Your task to perform on an android device: Clear the shopping cart on ebay.com. Add "logitech g903" to the cart on ebay.com Image 0: 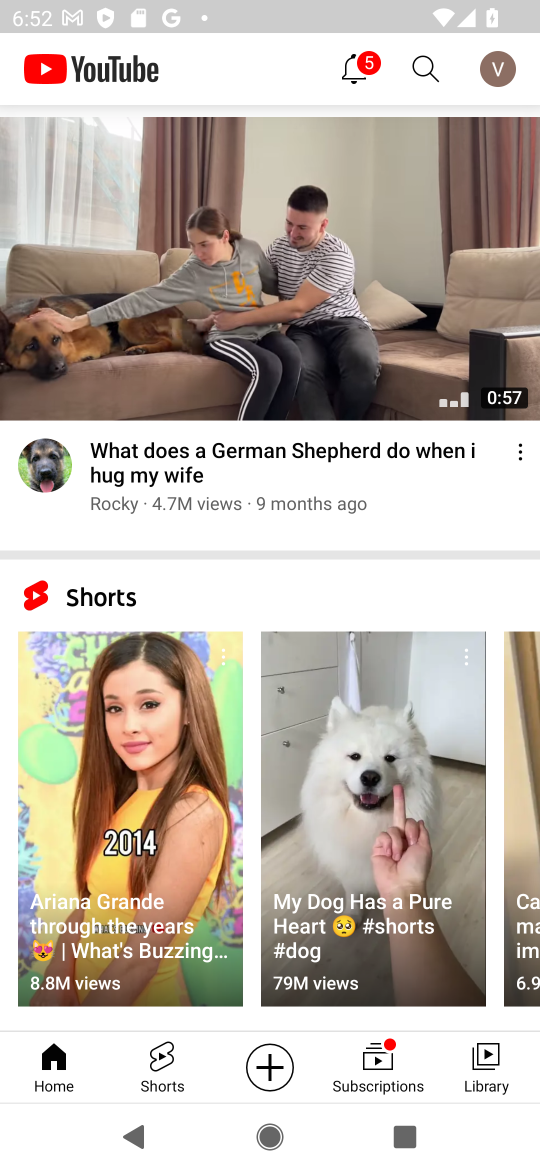
Step 0: press home button
Your task to perform on an android device: Clear the shopping cart on ebay.com. Add "logitech g903" to the cart on ebay.com Image 1: 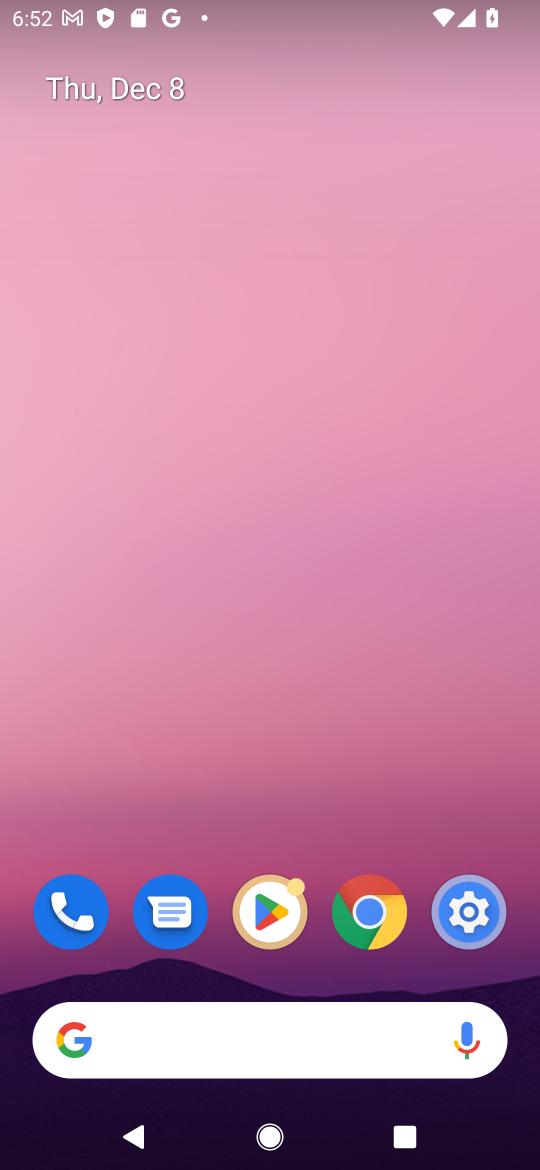
Step 1: drag from (439, 178) to (495, 37)
Your task to perform on an android device: Clear the shopping cart on ebay.com. Add "logitech g903" to the cart on ebay.com Image 2: 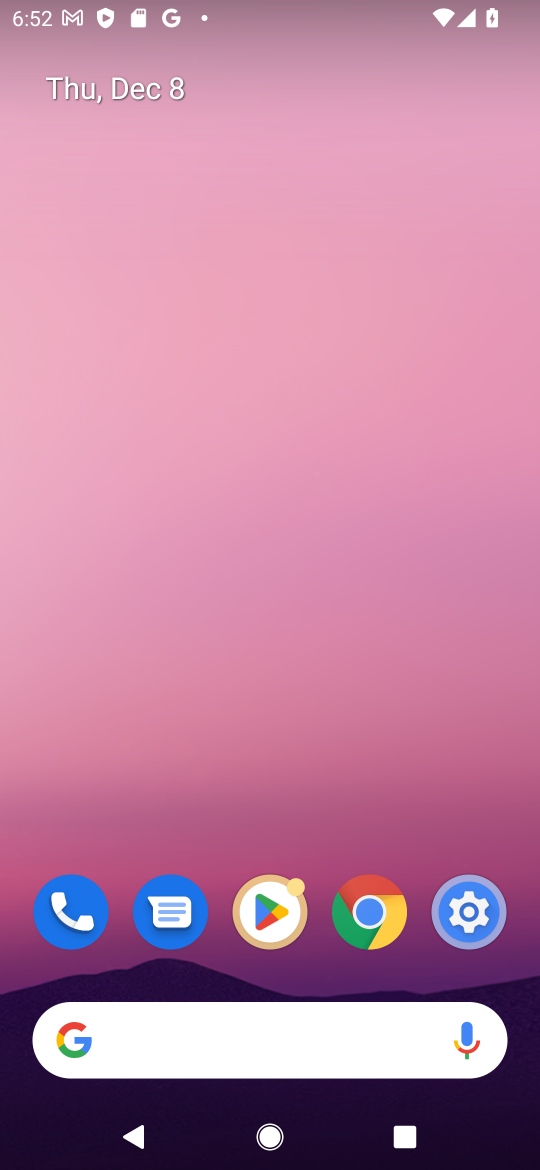
Step 2: drag from (386, 1025) to (507, 179)
Your task to perform on an android device: Clear the shopping cart on ebay.com. Add "logitech g903" to the cart on ebay.com Image 3: 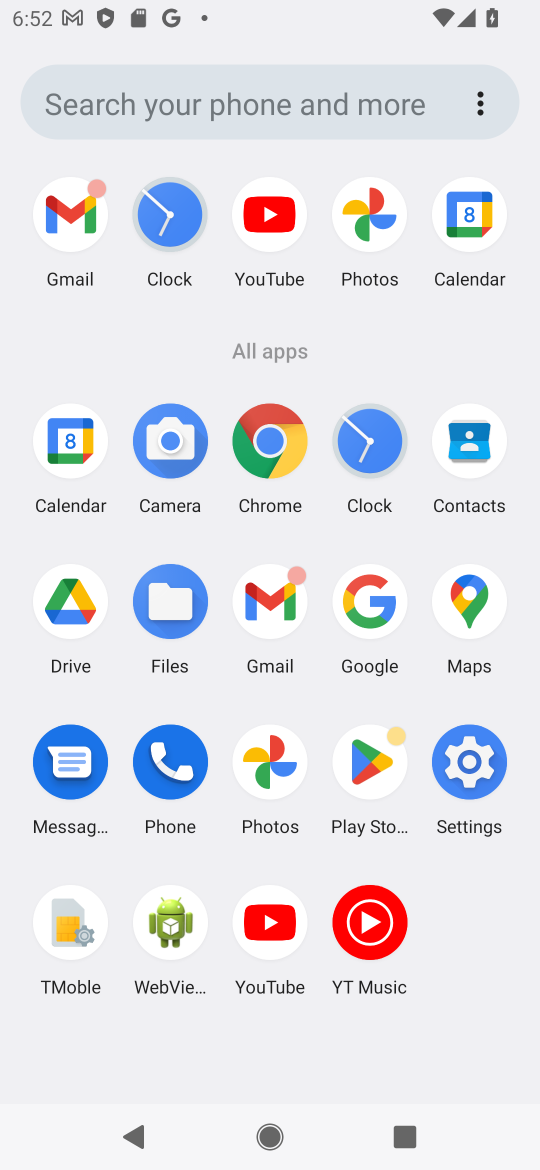
Step 3: click (380, 609)
Your task to perform on an android device: Clear the shopping cart on ebay.com. Add "logitech g903" to the cart on ebay.com Image 4: 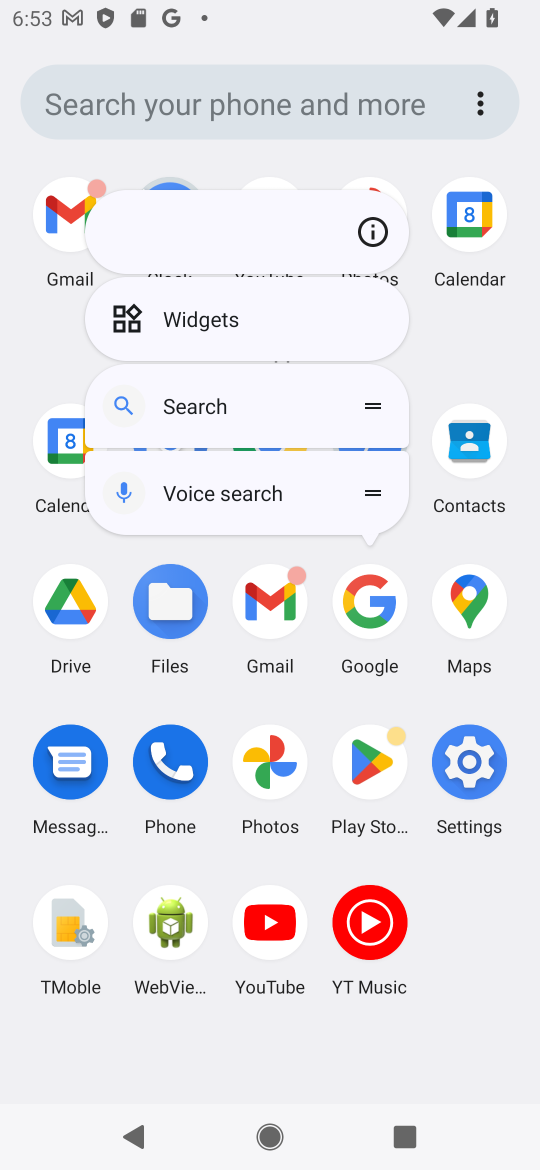
Step 4: click (361, 587)
Your task to perform on an android device: Clear the shopping cart on ebay.com. Add "logitech g903" to the cart on ebay.com Image 5: 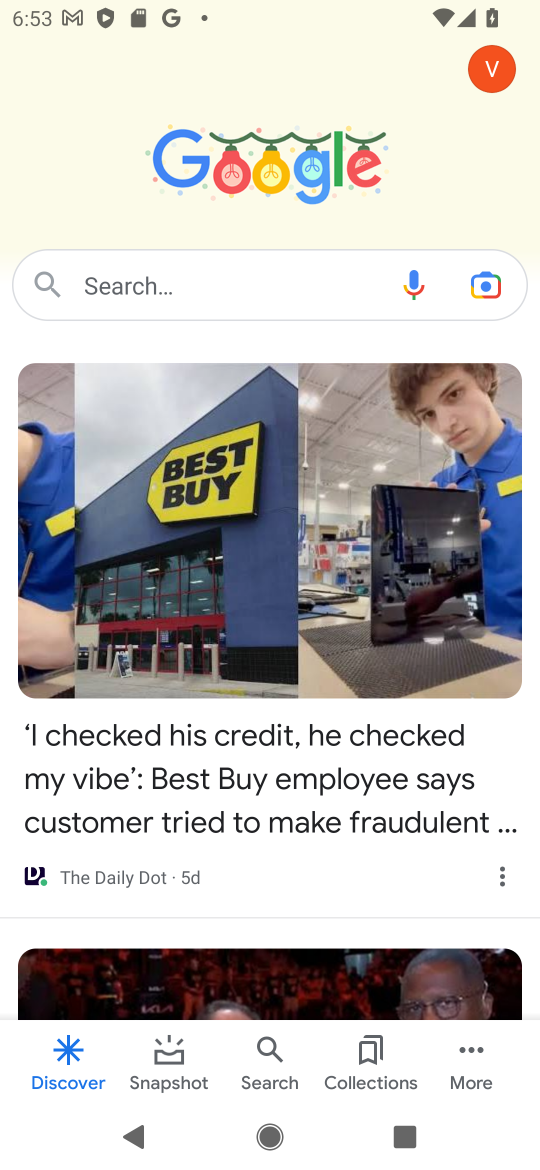
Step 5: click (226, 284)
Your task to perform on an android device: Clear the shopping cart on ebay.com. Add "logitech g903" to the cart on ebay.com Image 6: 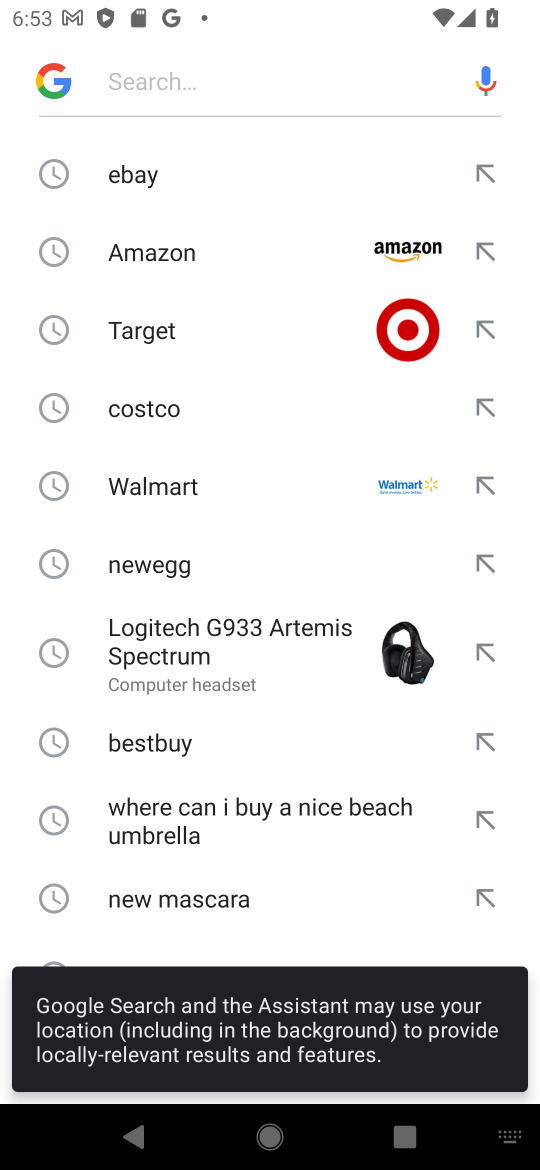
Step 6: click (124, 165)
Your task to perform on an android device: Clear the shopping cart on ebay.com. Add "logitech g903" to the cart on ebay.com Image 7: 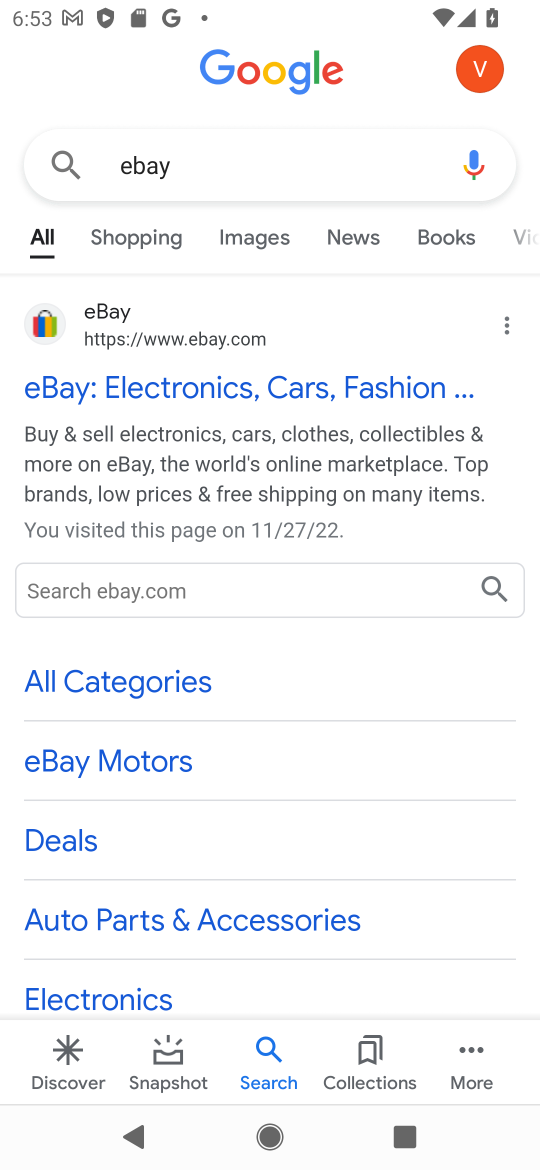
Step 7: click (150, 378)
Your task to perform on an android device: Clear the shopping cart on ebay.com. Add "logitech g903" to the cart on ebay.com Image 8: 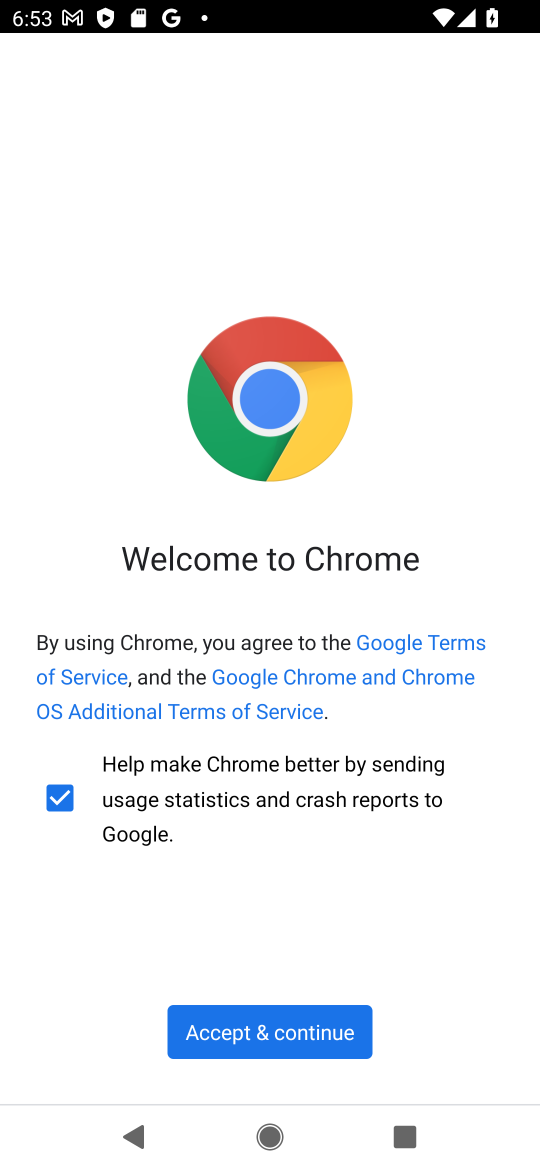
Step 8: click (254, 1046)
Your task to perform on an android device: Clear the shopping cart on ebay.com. Add "logitech g903" to the cart on ebay.com Image 9: 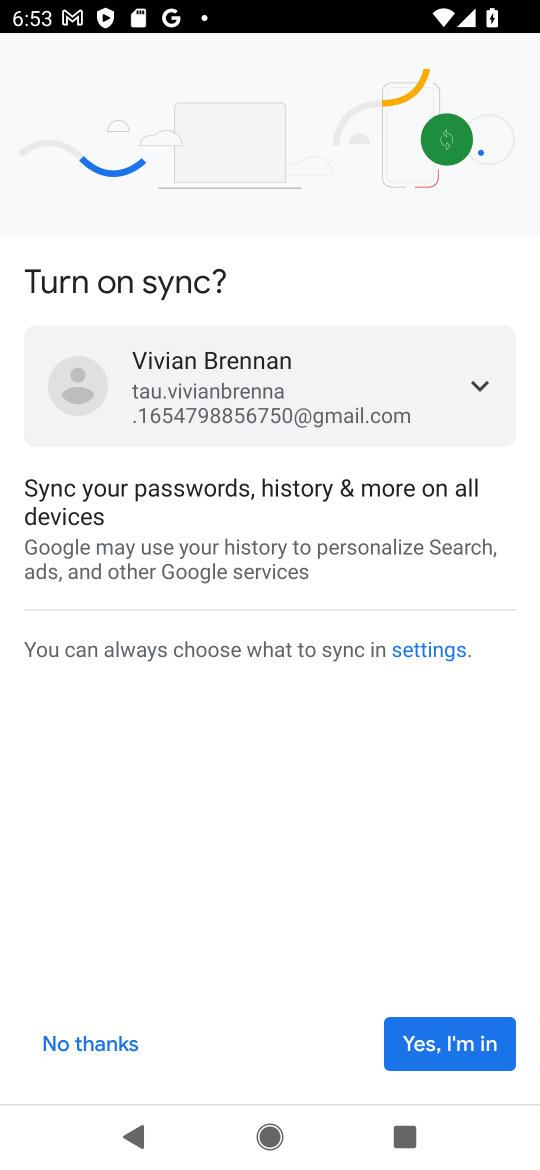
Step 9: click (429, 1029)
Your task to perform on an android device: Clear the shopping cart on ebay.com. Add "logitech g903" to the cart on ebay.com Image 10: 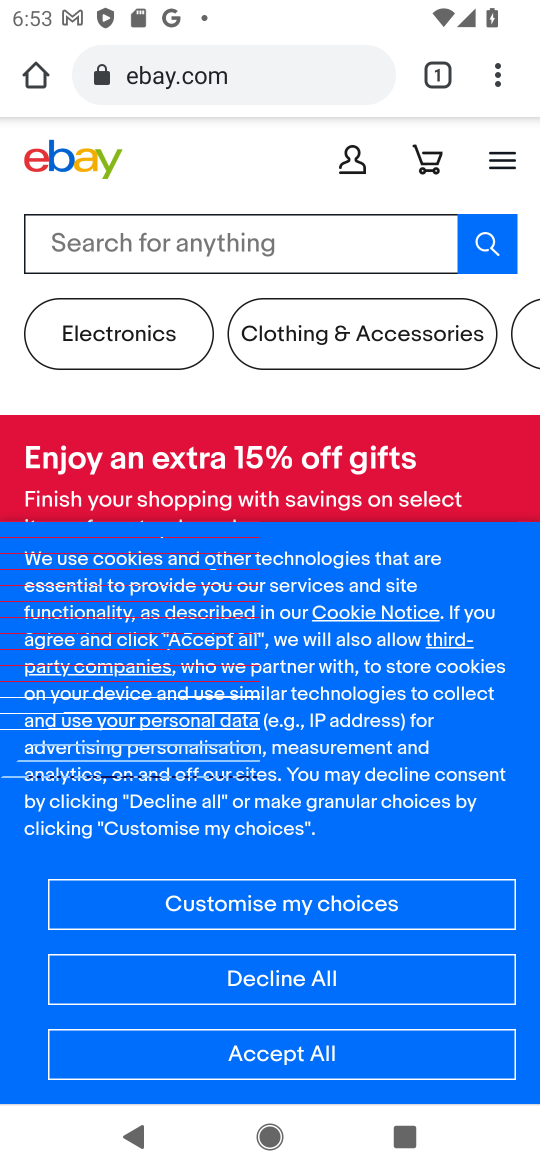
Step 10: click (139, 239)
Your task to perform on an android device: Clear the shopping cart on ebay.com. Add "logitech g903" to the cart on ebay.com Image 11: 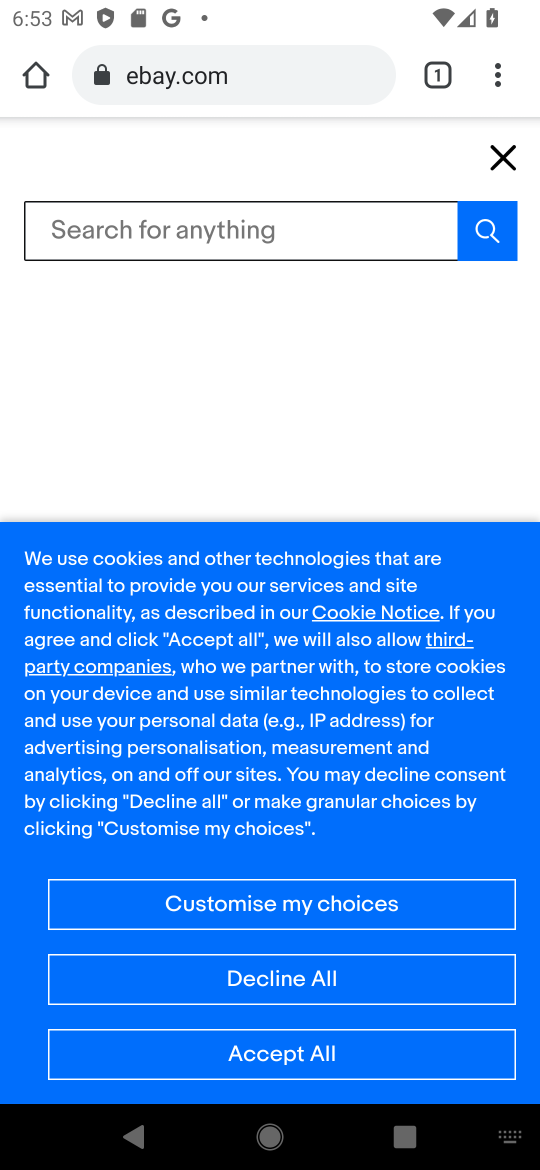
Step 11: click (497, 149)
Your task to perform on an android device: Clear the shopping cart on ebay.com. Add "logitech g903" to the cart on ebay.com Image 12: 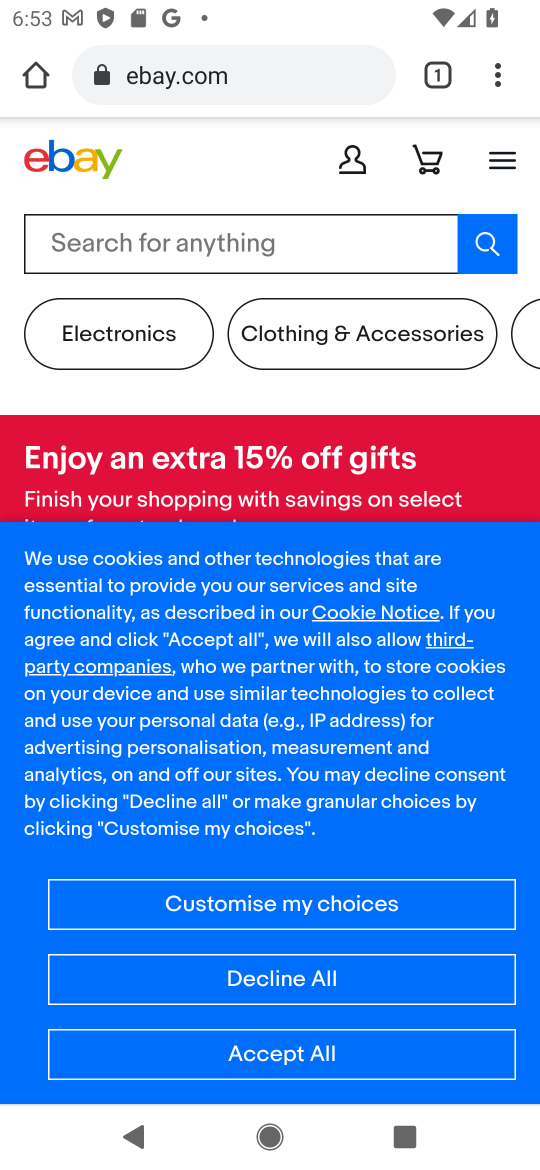
Step 12: click (188, 251)
Your task to perform on an android device: Clear the shopping cart on ebay.com. Add "logitech g903" to the cart on ebay.com Image 13: 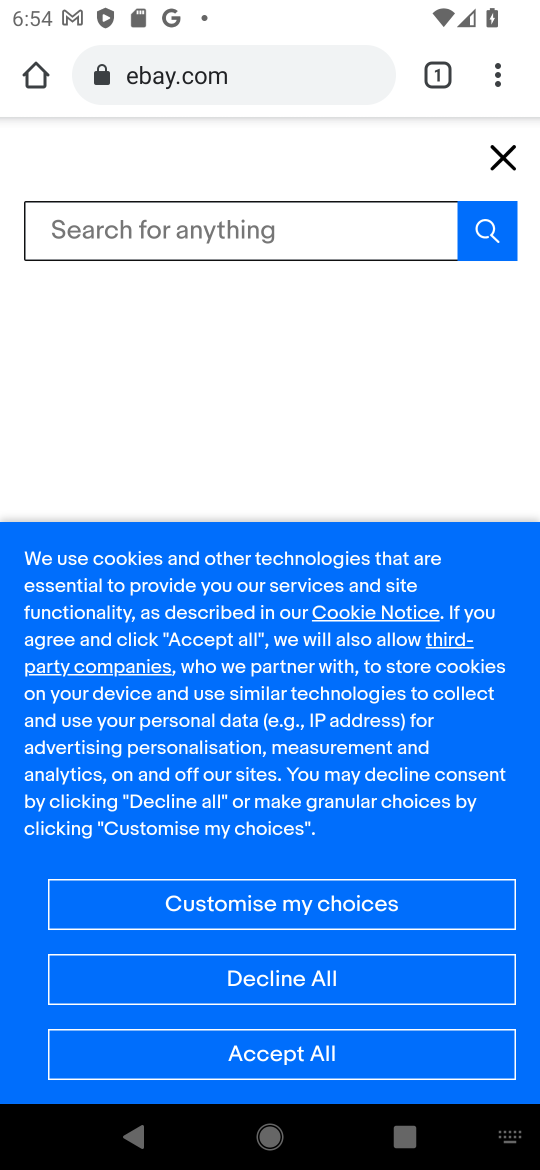
Step 13: type "logitech g90"
Your task to perform on an android device: Clear the shopping cart on ebay.com. Add "logitech g903" to the cart on ebay.com Image 14: 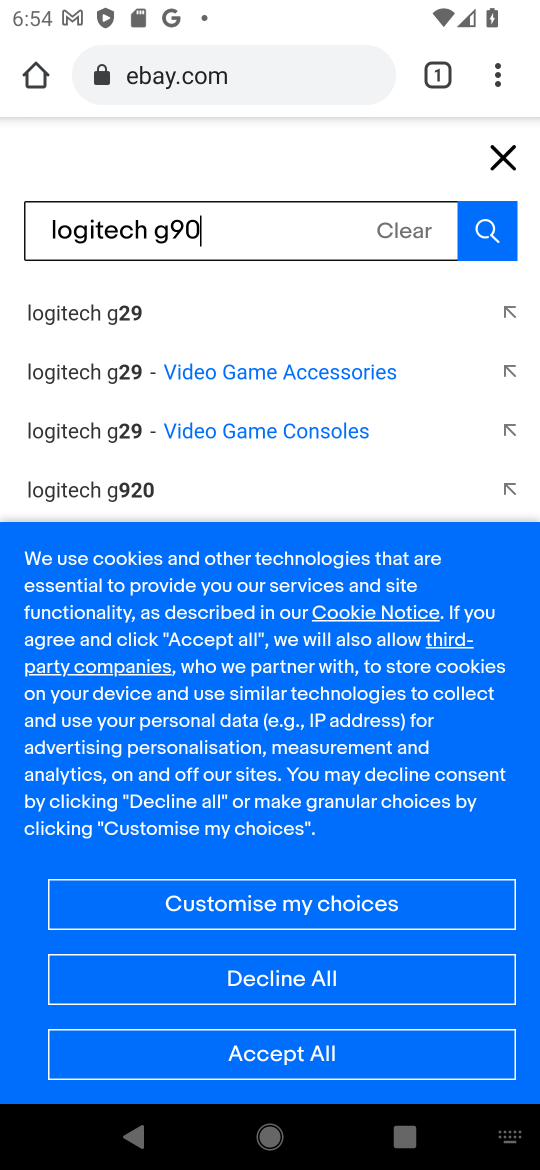
Step 14: click (141, 317)
Your task to perform on an android device: Clear the shopping cart on ebay.com. Add "logitech g903" to the cart on ebay.com Image 15: 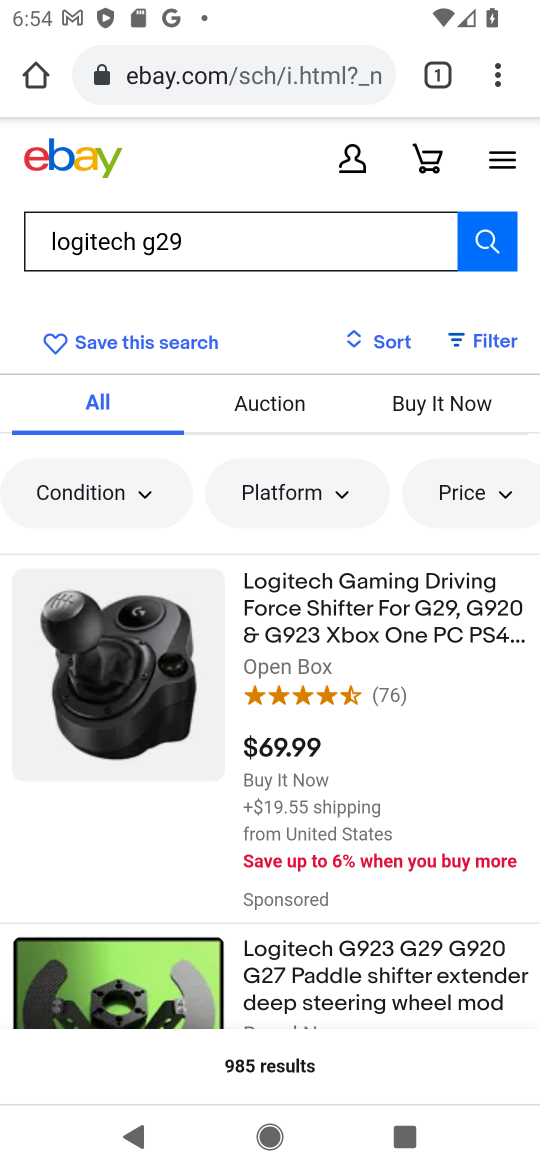
Step 15: click (360, 621)
Your task to perform on an android device: Clear the shopping cart on ebay.com. Add "logitech g903" to the cart on ebay.com Image 16: 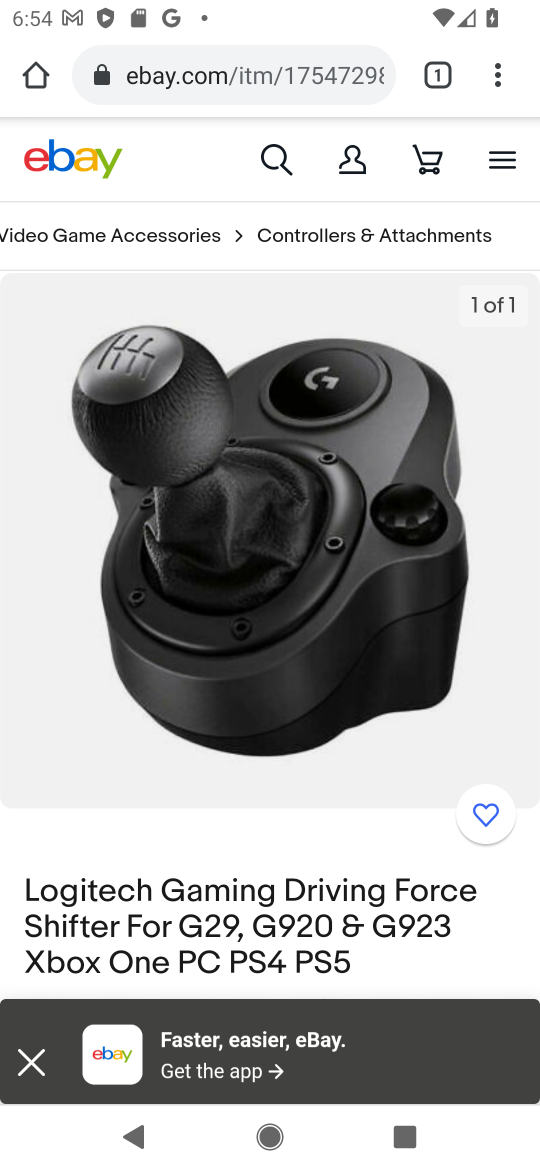
Step 16: drag from (195, 1004) to (301, 433)
Your task to perform on an android device: Clear the shopping cart on ebay.com. Add "logitech g903" to the cart on ebay.com Image 17: 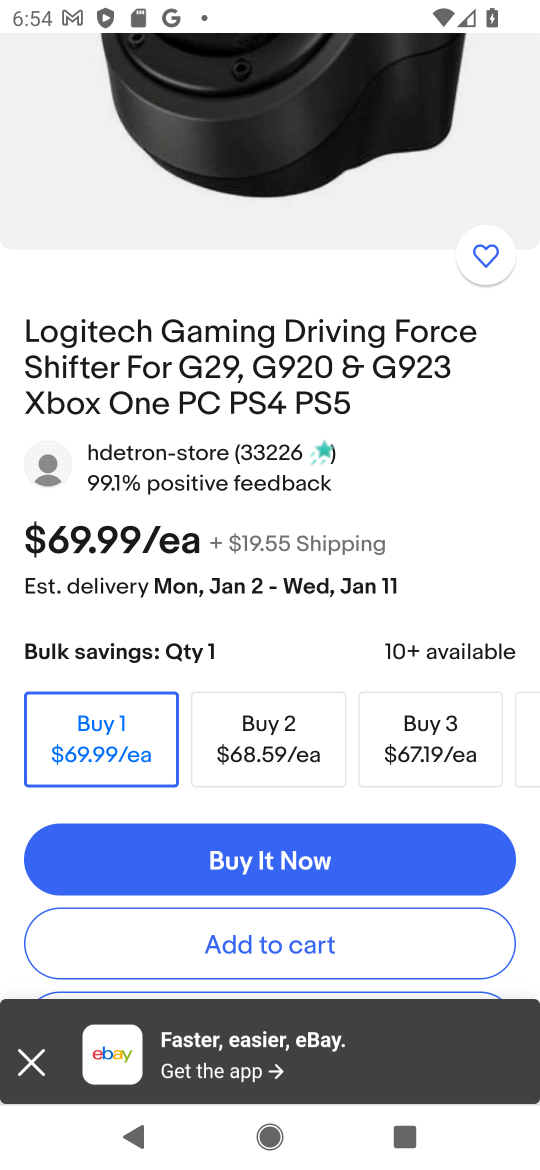
Step 17: click (277, 939)
Your task to perform on an android device: Clear the shopping cart on ebay.com. Add "logitech g903" to the cart on ebay.com Image 18: 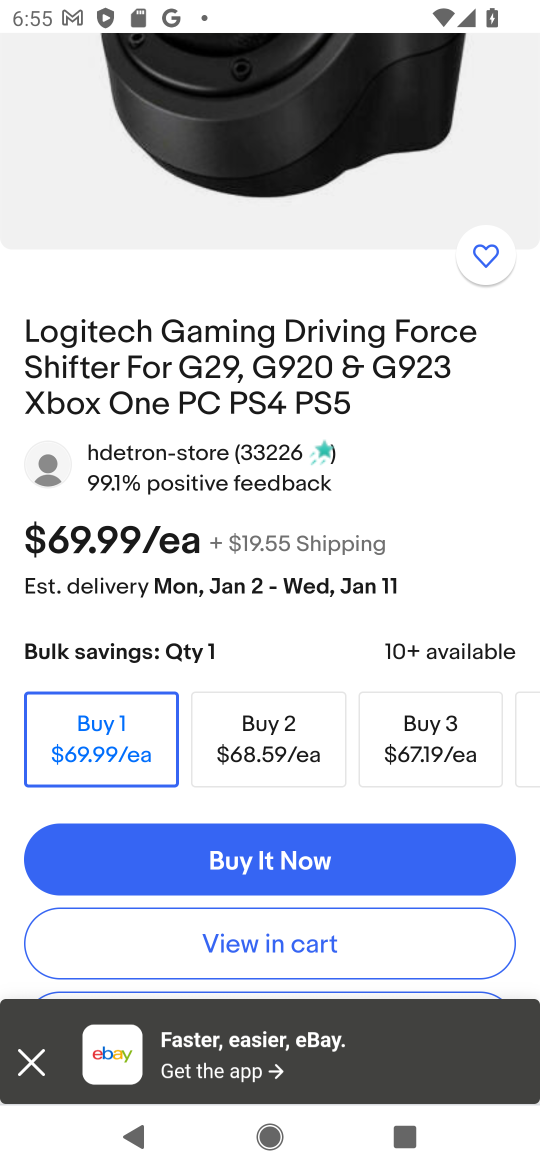
Step 18: task complete